Your task to perform on an android device: delete the emails in spam in the gmail app Image 0: 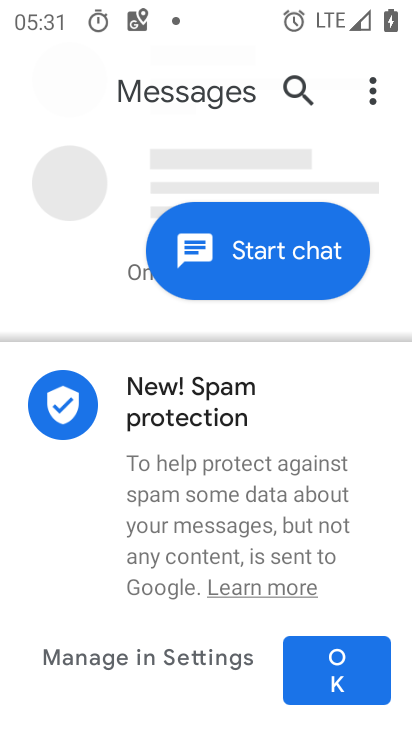
Step 0: press home button
Your task to perform on an android device: delete the emails in spam in the gmail app Image 1: 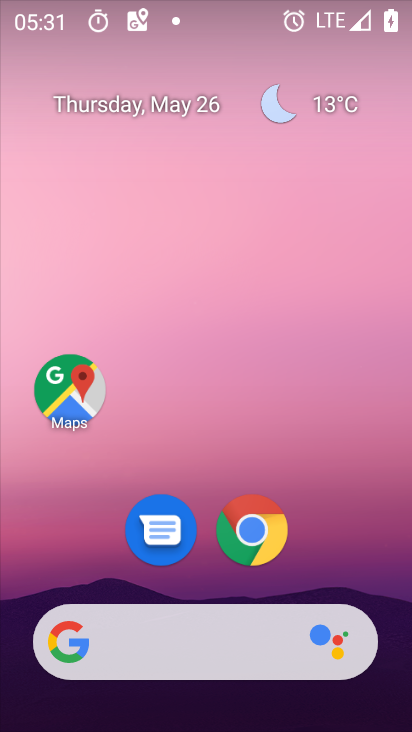
Step 1: drag from (273, 656) to (261, 17)
Your task to perform on an android device: delete the emails in spam in the gmail app Image 2: 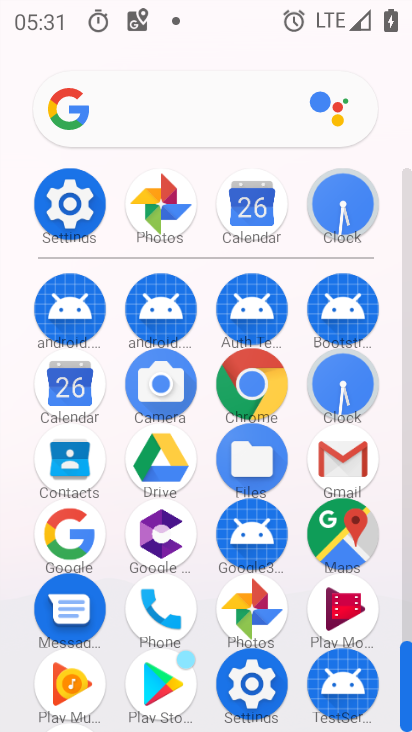
Step 2: click (324, 461)
Your task to perform on an android device: delete the emails in spam in the gmail app Image 3: 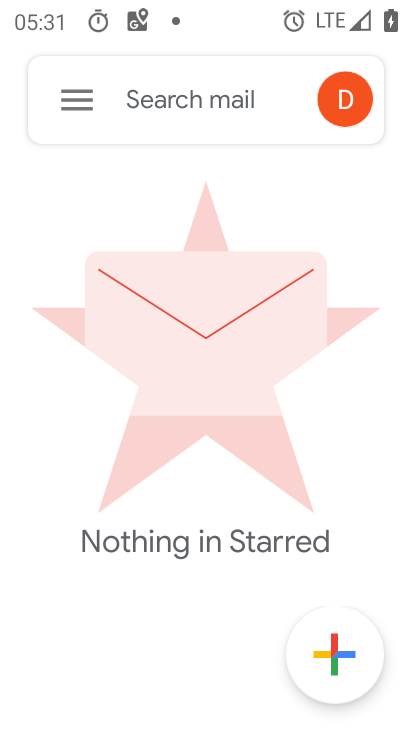
Step 3: click (71, 110)
Your task to perform on an android device: delete the emails in spam in the gmail app Image 4: 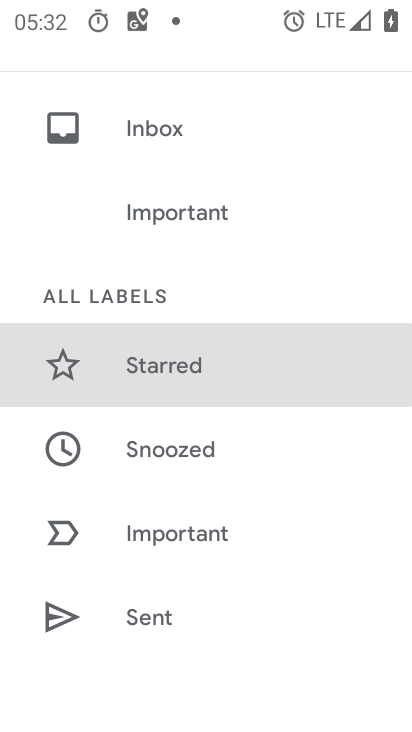
Step 4: drag from (206, 573) to (238, 242)
Your task to perform on an android device: delete the emails in spam in the gmail app Image 5: 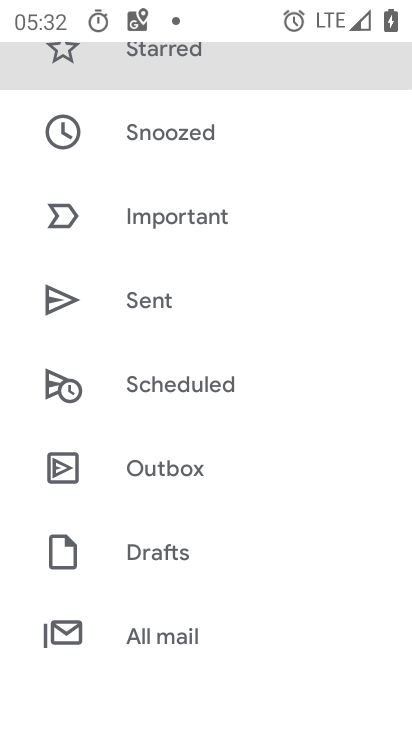
Step 5: drag from (253, 612) to (297, 286)
Your task to perform on an android device: delete the emails in spam in the gmail app Image 6: 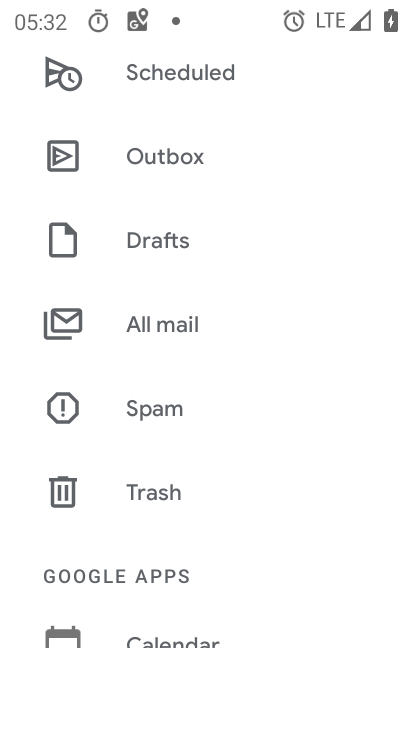
Step 6: click (178, 405)
Your task to perform on an android device: delete the emails in spam in the gmail app Image 7: 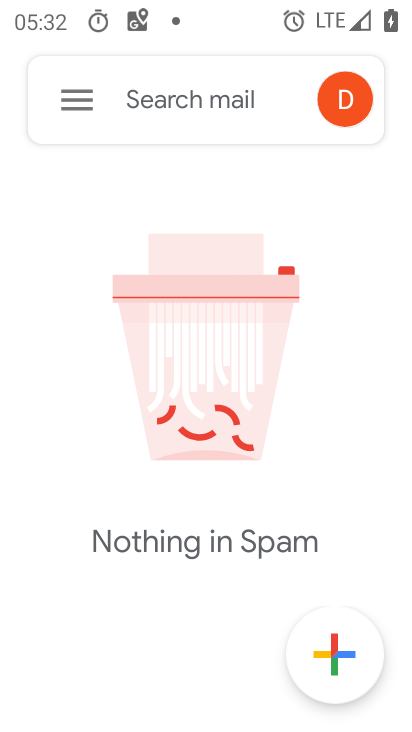
Step 7: task complete